Your task to perform on an android device: toggle notifications settings in the gmail app Image 0: 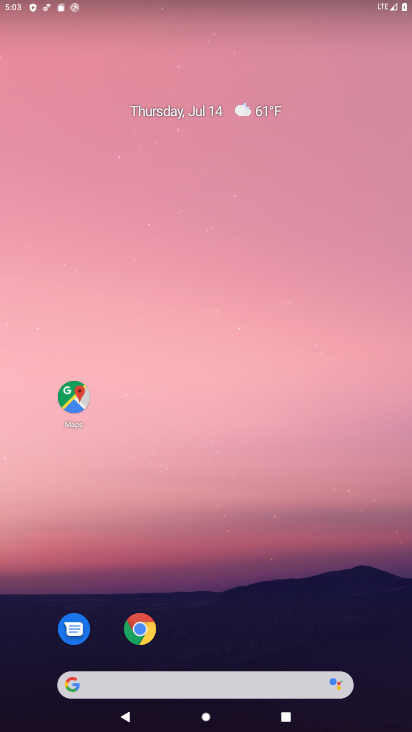
Step 0: drag from (228, 568) to (180, 0)
Your task to perform on an android device: toggle notifications settings in the gmail app Image 1: 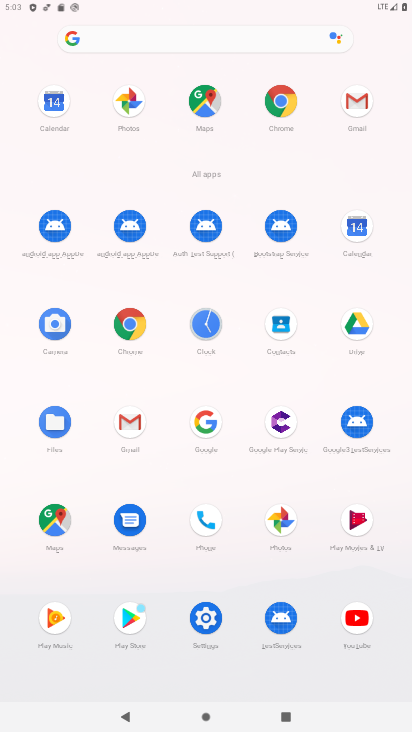
Step 1: click (122, 414)
Your task to perform on an android device: toggle notifications settings in the gmail app Image 2: 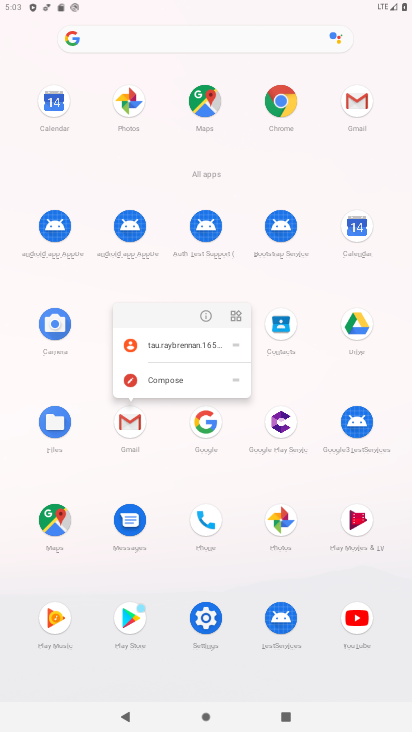
Step 2: click (208, 306)
Your task to perform on an android device: toggle notifications settings in the gmail app Image 3: 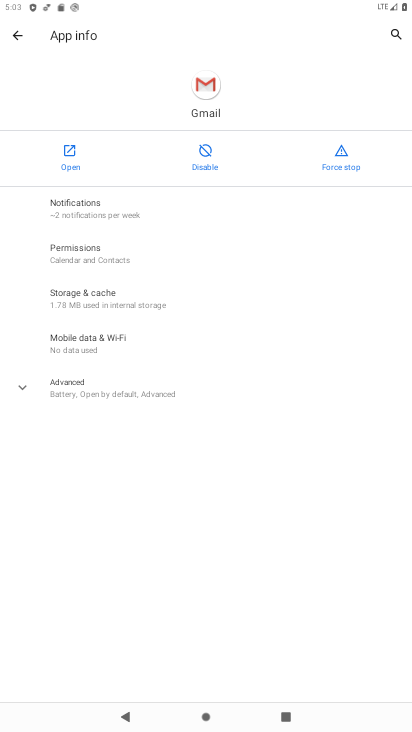
Step 3: click (90, 205)
Your task to perform on an android device: toggle notifications settings in the gmail app Image 4: 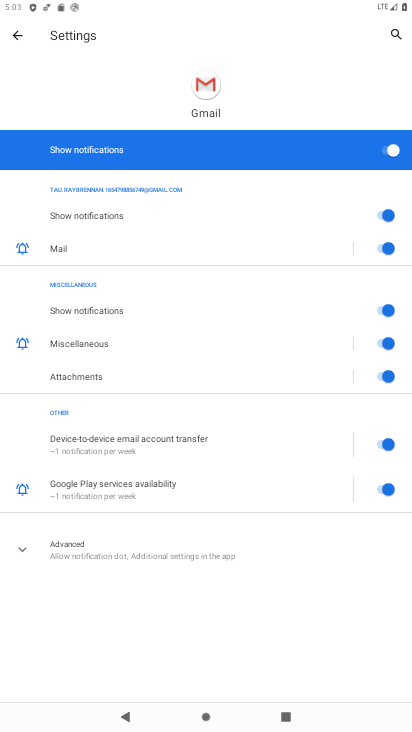
Step 4: click (371, 136)
Your task to perform on an android device: toggle notifications settings in the gmail app Image 5: 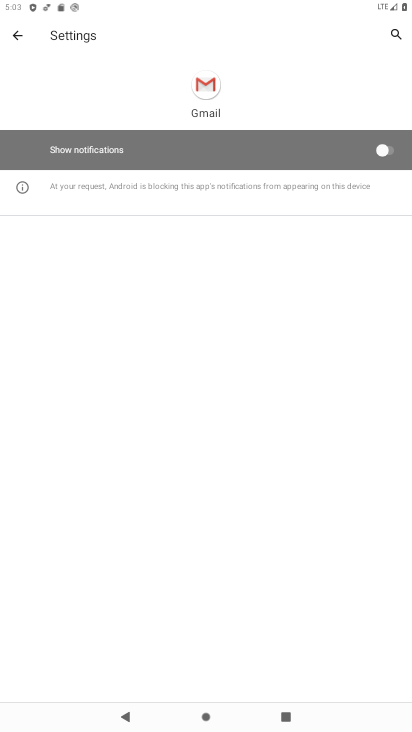
Step 5: task complete